Your task to perform on an android device: read, delete, or share a saved page in the chrome app Image 0: 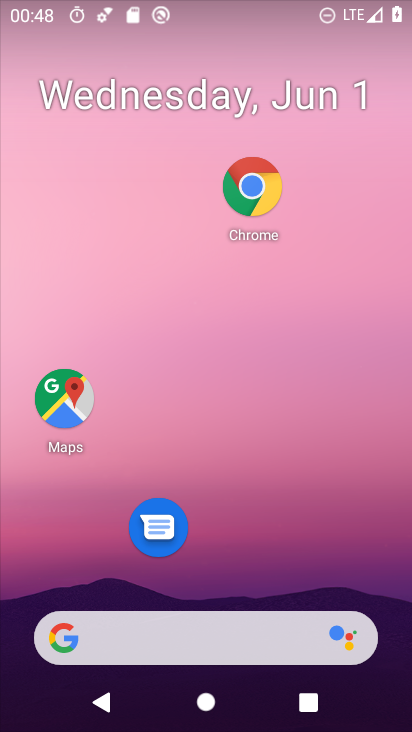
Step 0: drag from (220, 595) to (175, 84)
Your task to perform on an android device: read, delete, or share a saved page in the chrome app Image 1: 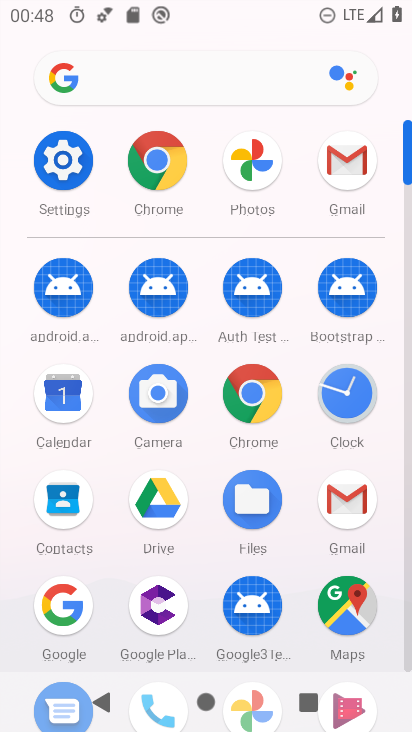
Step 1: click (246, 395)
Your task to perform on an android device: read, delete, or share a saved page in the chrome app Image 2: 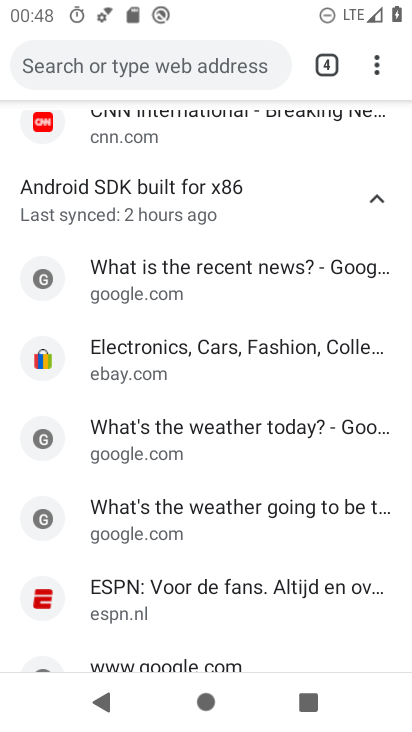
Step 2: drag from (378, 62) to (248, 233)
Your task to perform on an android device: read, delete, or share a saved page in the chrome app Image 3: 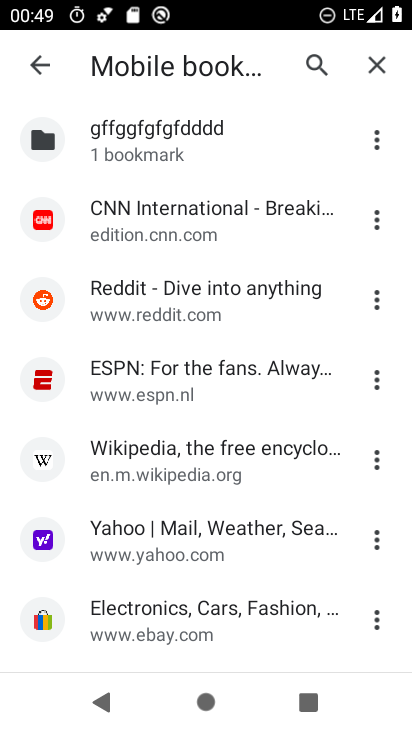
Step 3: click (373, 310)
Your task to perform on an android device: read, delete, or share a saved page in the chrome app Image 4: 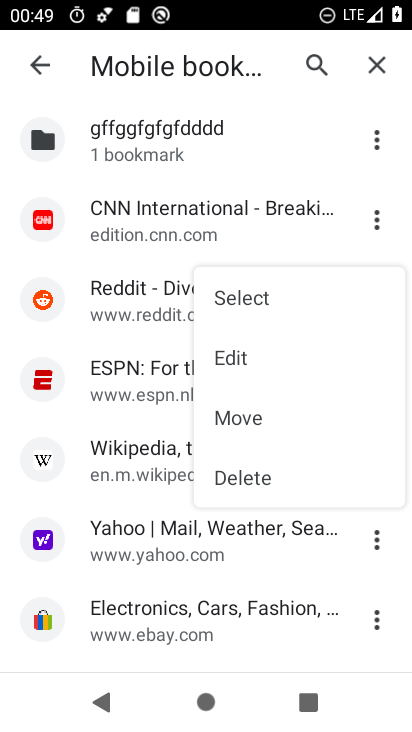
Step 4: click (229, 487)
Your task to perform on an android device: read, delete, or share a saved page in the chrome app Image 5: 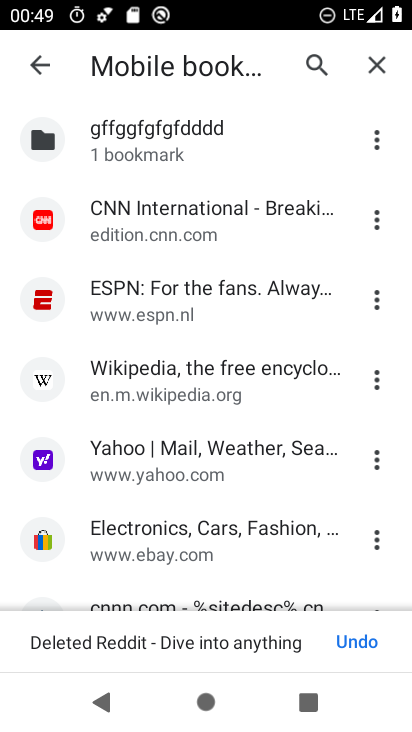
Step 5: click (121, 460)
Your task to perform on an android device: read, delete, or share a saved page in the chrome app Image 6: 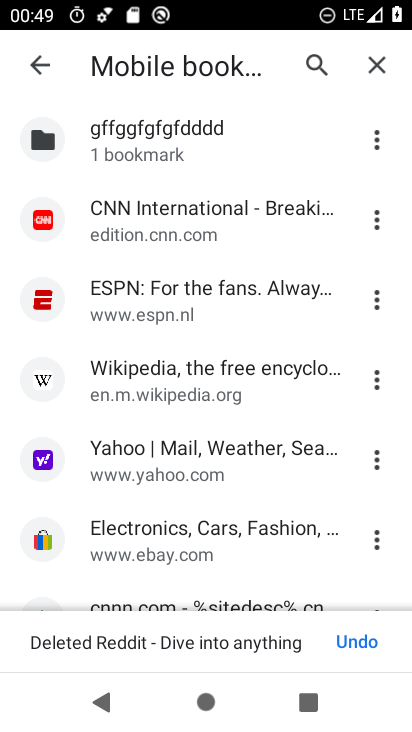
Step 6: task complete